Your task to perform on an android device: Find coffee shops on Maps Image 0: 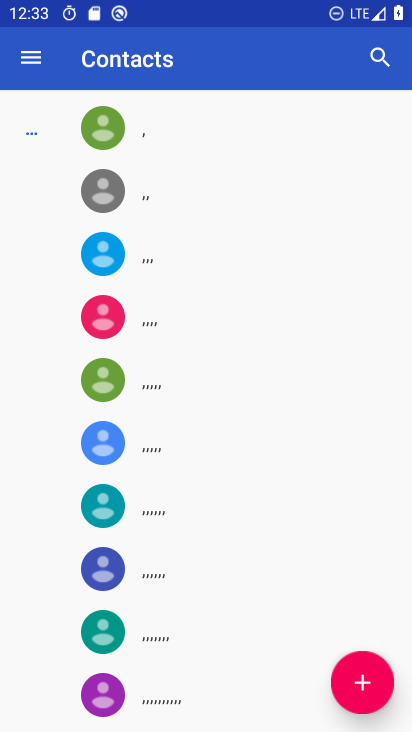
Step 0: press home button
Your task to perform on an android device: Find coffee shops on Maps Image 1: 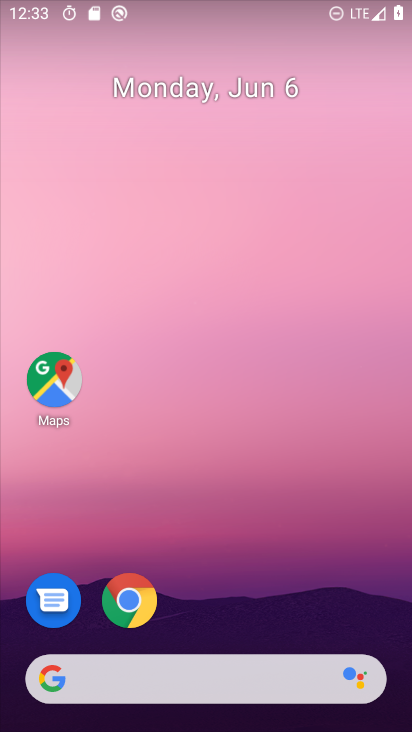
Step 1: click (77, 369)
Your task to perform on an android device: Find coffee shops on Maps Image 2: 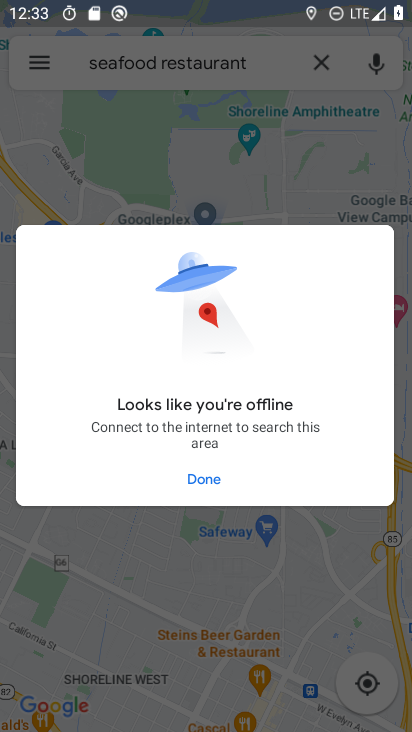
Step 2: task complete